Your task to perform on an android device: all mails in gmail Image 0: 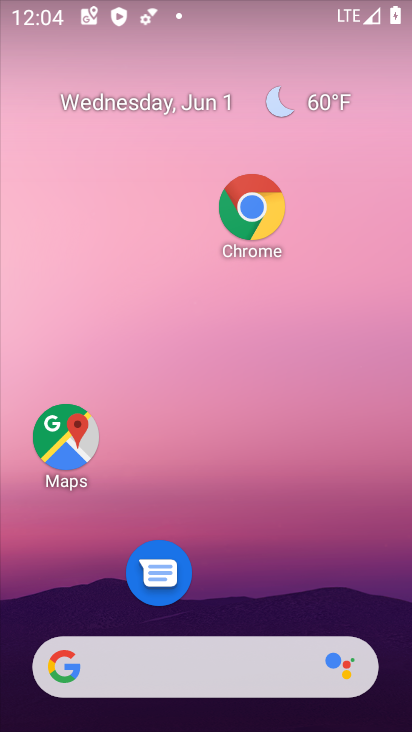
Step 0: drag from (221, 594) to (235, 175)
Your task to perform on an android device: all mails in gmail Image 1: 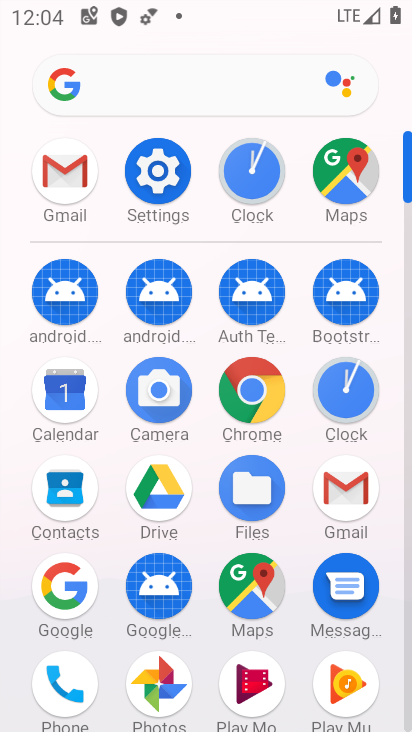
Step 1: click (70, 178)
Your task to perform on an android device: all mails in gmail Image 2: 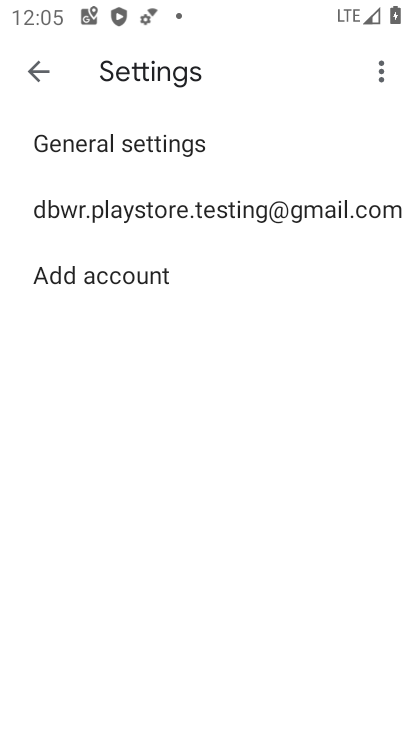
Step 2: click (38, 75)
Your task to perform on an android device: all mails in gmail Image 3: 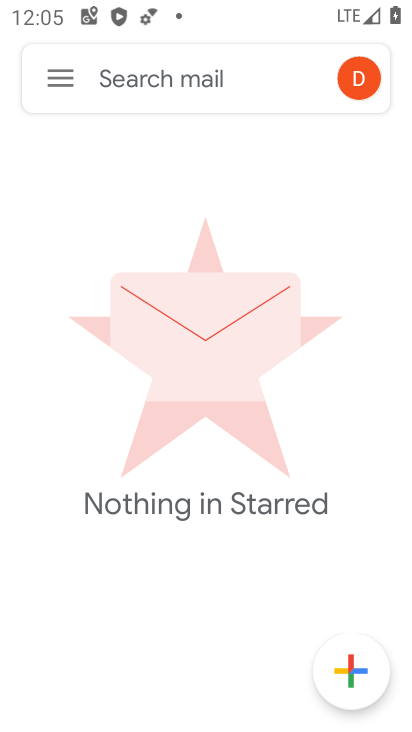
Step 3: click (57, 93)
Your task to perform on an android device: all mails in gmail Image 4: 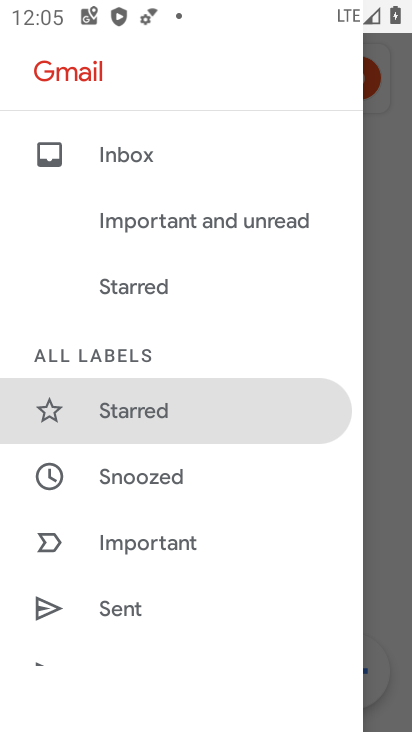
Step 4: drag from (177, 601) to (204, 274)
Your task to perform on an android device: all mails in gmail Image 5: 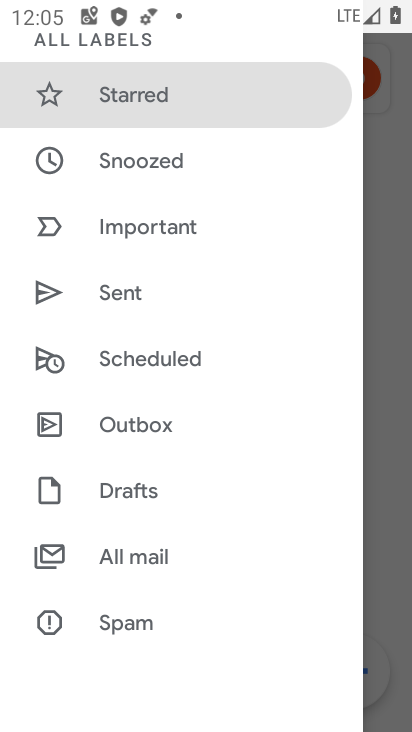
Step 5: click (148, 551)
Your task to perform on an android device: all mails in gmail Image 6: 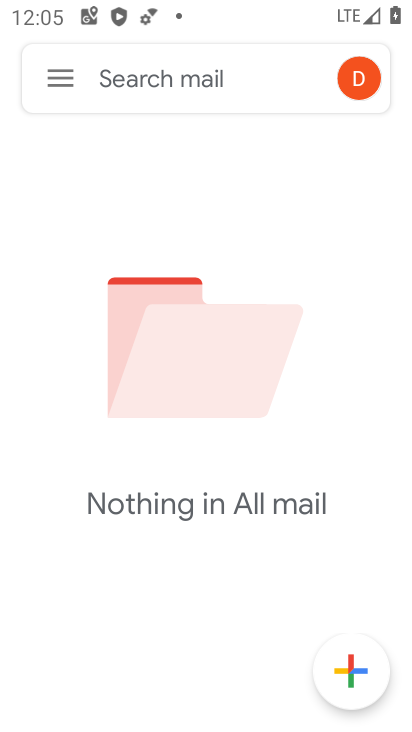
Step 6: task complete